Your task to perform on an android device: Go to display settings Image 0: 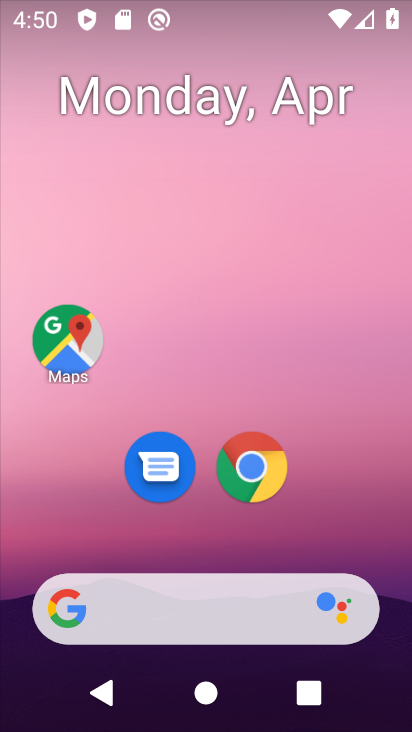
Step 0: drag from (312, 522) to (272, 15)
Your task to perform on an android device: Go to display settings Image 1: 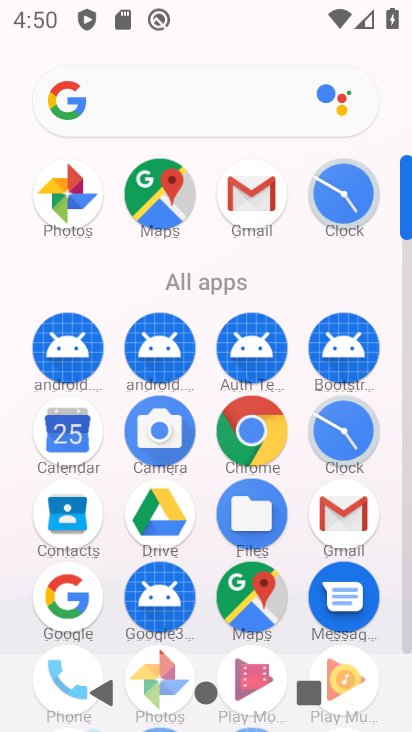
Step 1: drag from (288, 575) to (310, 80)
Your task to perform on an android device: Go to display settings Image 2: 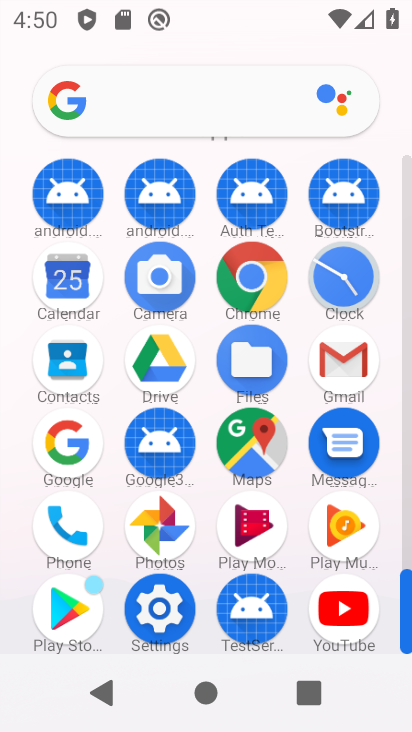
Step 2: click (176, 598)
Your task to perform on an android device: Go to display settings Image 3: 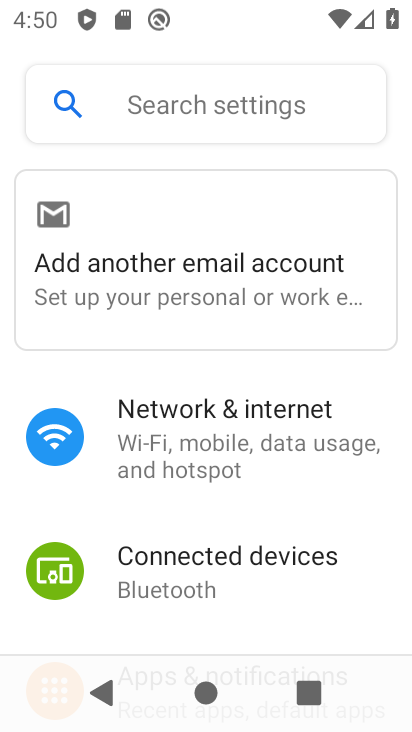
Step 3: drag from (290, 556) to (356, 99)
Your task to perform on an android device: Go to display settings Image 4: 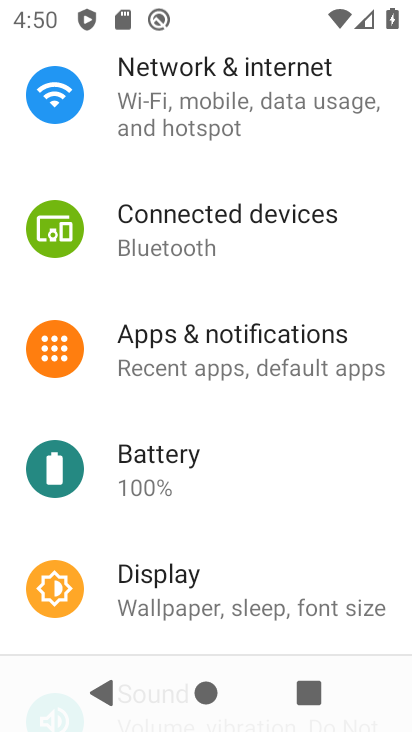
Step 4: click (240, 581)
Your task to perform on an android device: Go to display settings Image 5: 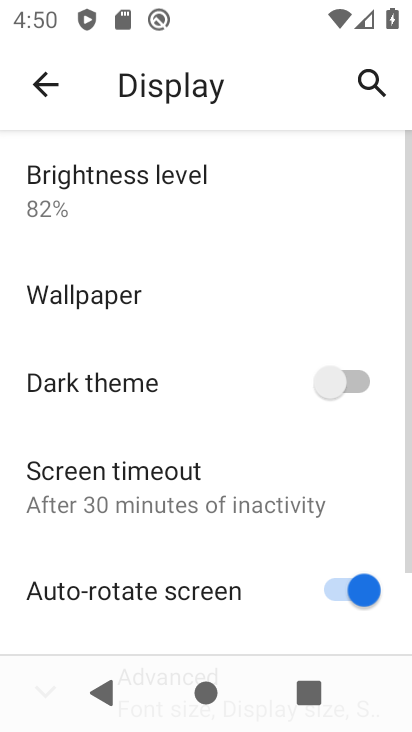
Step 5: task complete